Your task to perform on an android device: check google app version Image 0: 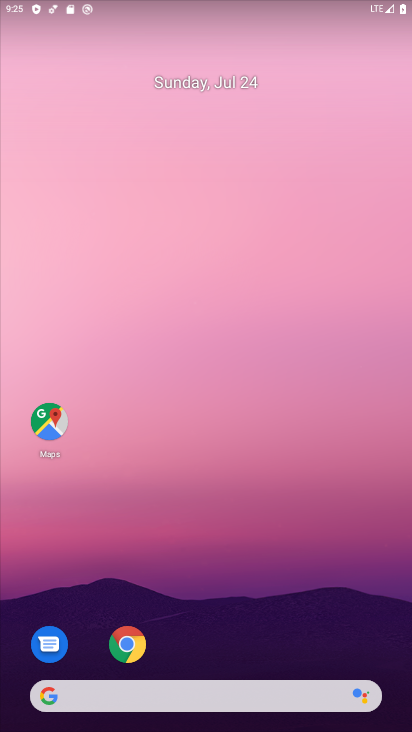
Step 0: drag from (222, 685) to (229, 227)
Your task to perform on an android device: check google app version Image 1: 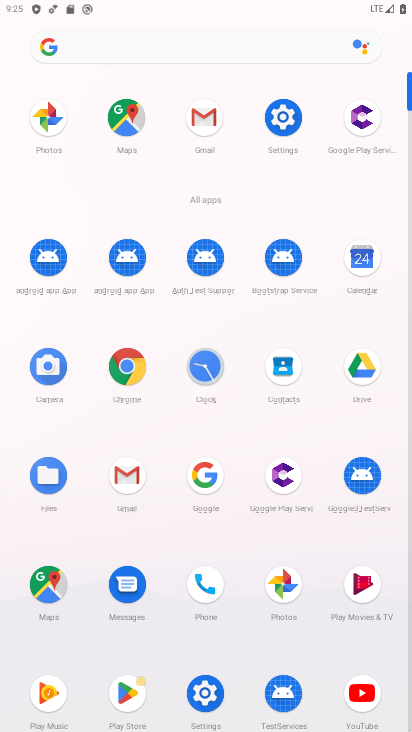
Step 1: click (206, 479)
Your task to perform on an android device: check google app version Image 2: 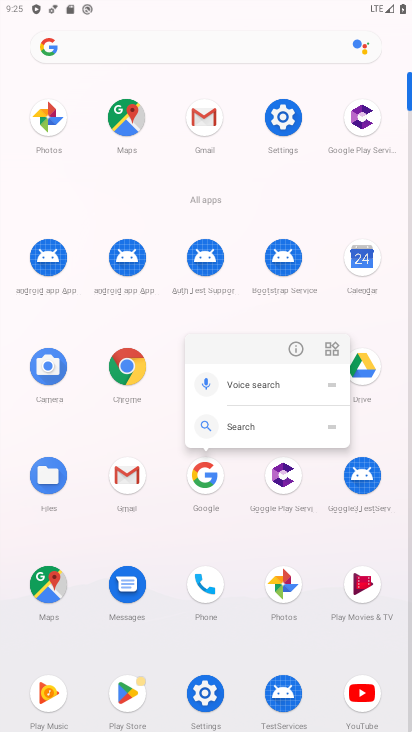
Step 2: click (298, 350)
Your task to perform on an android device: check google app version Image 3: 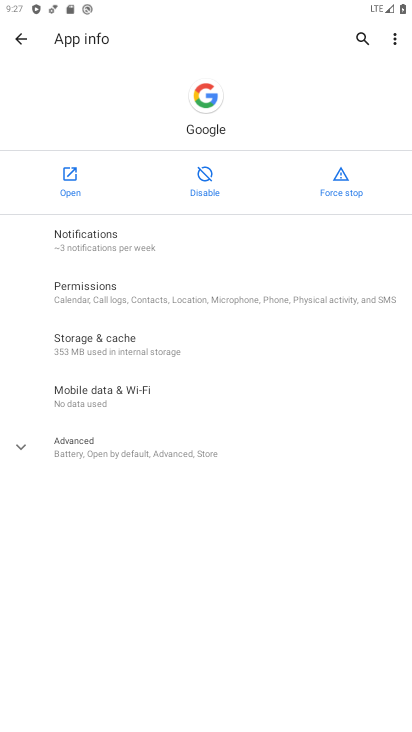
Step 3: click (96, 445)
Your task to perform on an android device: check google app version Image 4: 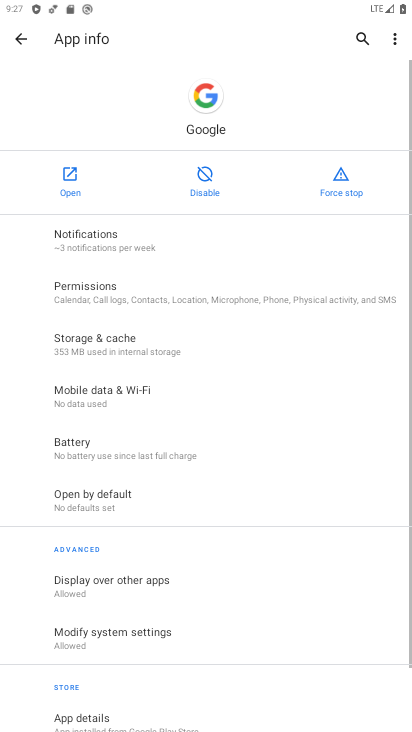
Step 4: task complete